Your task to perform on an android device: Open Reddit.com Image 0: 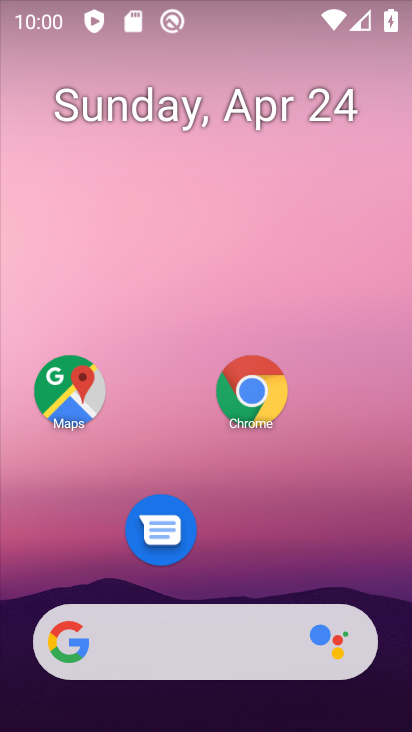
Step 0: click (254, 390)
Your task to perform on an android device: Open Reddit.com Image 1: 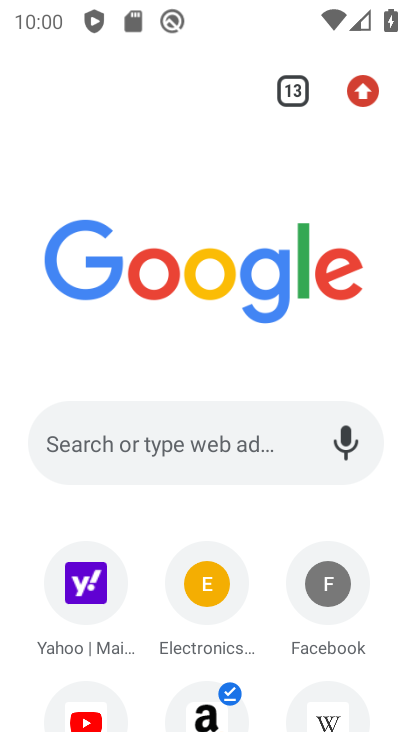
Step 1: click (201, 430)
Your task to perform on an android device: Open Reddit.com Image 2: 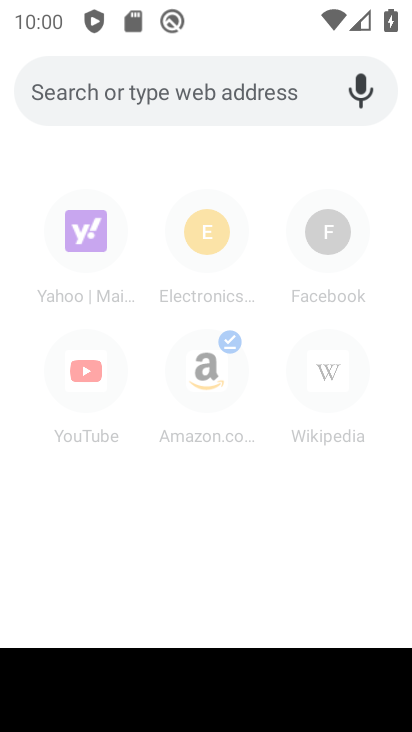
Step 2: type "reddit.com"
Your task to perform on an android device: Open Reddit.com Image 3: 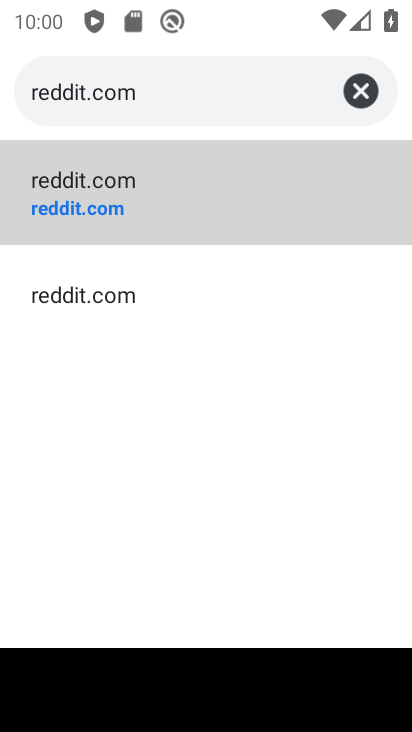
Step 3: click (87, 188)
Your task to perform on an android device: Open Reddit.com Image 4: 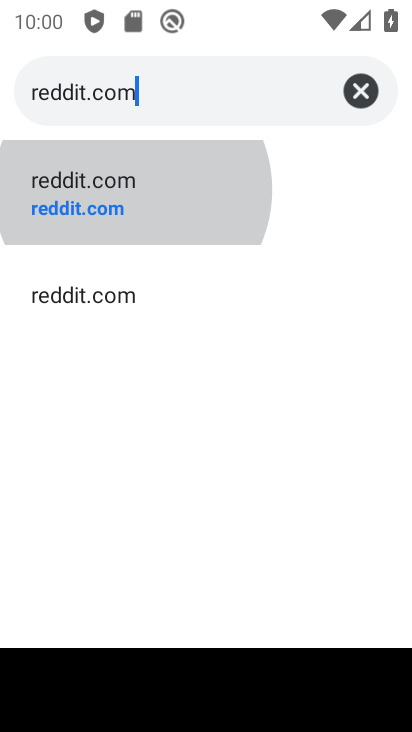
Step 4: click (87, 188)
Your task to perform on an android device: Open Reddit.com Image 5: 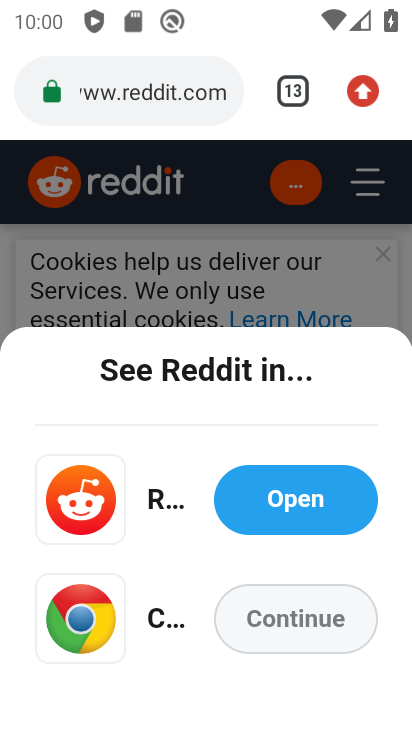
Step 5: task complete